Your task to perform on an android device: Go to privacy settings Image 0: 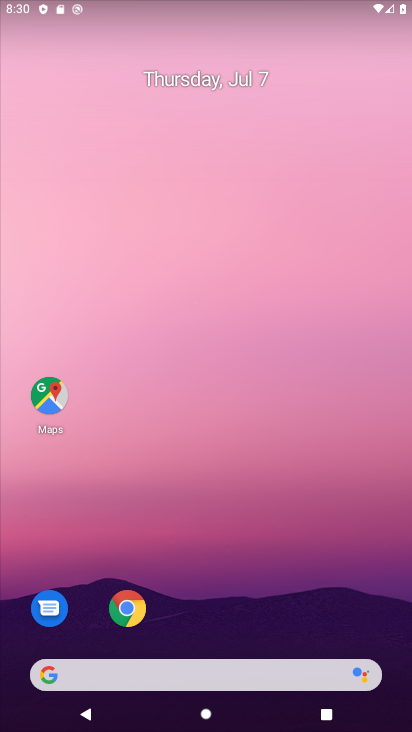
Step 0: drag from (235, 656) to (207, 255)
Your task to perform on an android device: Go to privacy settings Image 1: 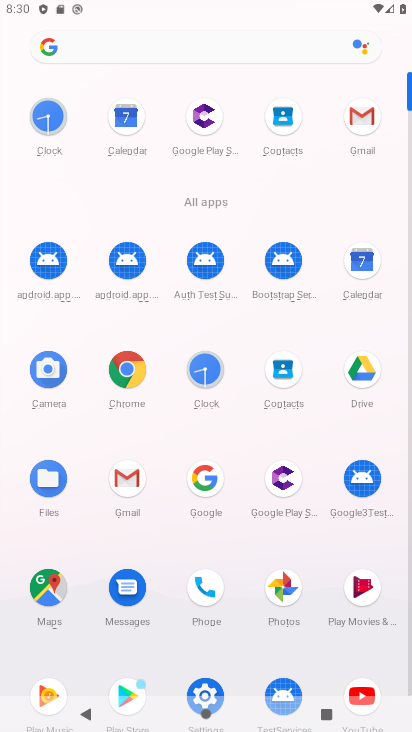
Step 1: click (201, 688)
Your task to perform on an android device: Go to privacy settings Image 2: 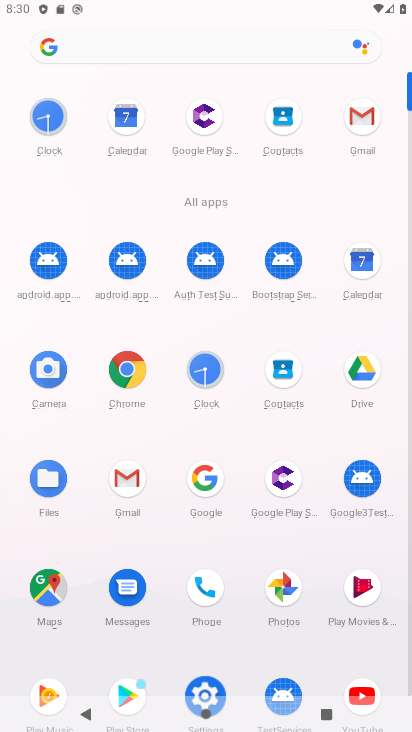
Step 2: click (203, 690)
Your task to perform on an android device: Go to privacy settings Image 3: 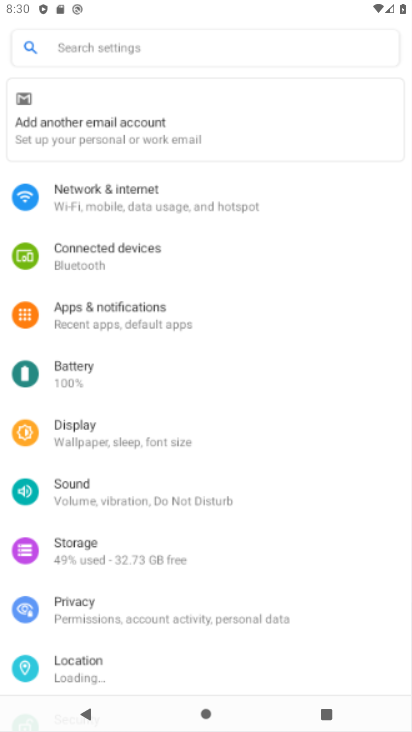
Step 3: click (205, 691)
Your task to perform on an android device: Go to privacy settings Image 4: 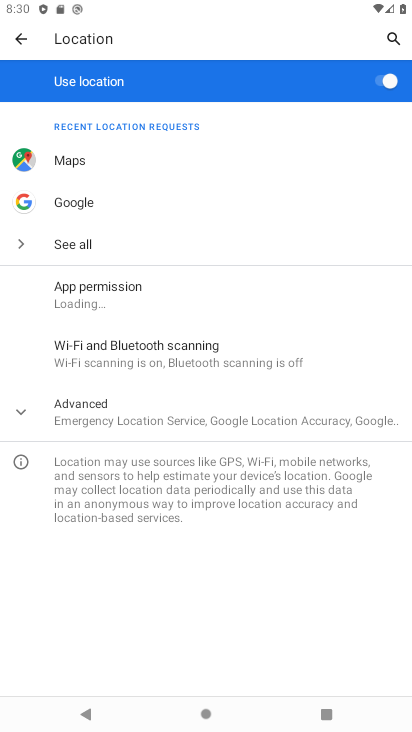
Step 4: click (18, 40)
Your task to perform on an android device: Go to privacy settings Image 5: 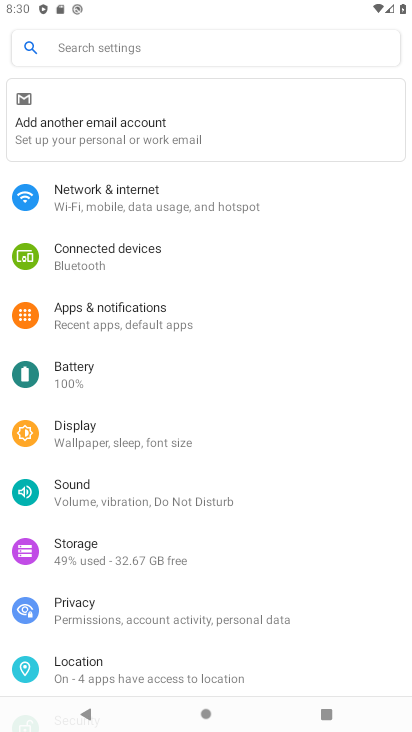
Step 5: click (95, 621)
Your task to perform on an android device: Go to privacy settings Image 6: 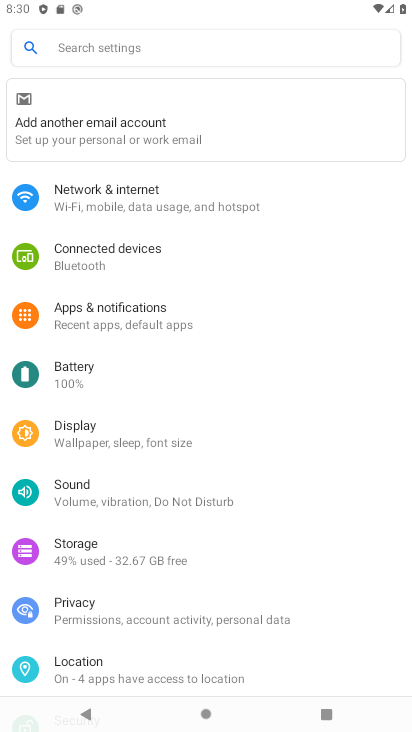
Step 6: click (95, 621)
Your task to perform on an android device: Go to privacy settings Image 7: 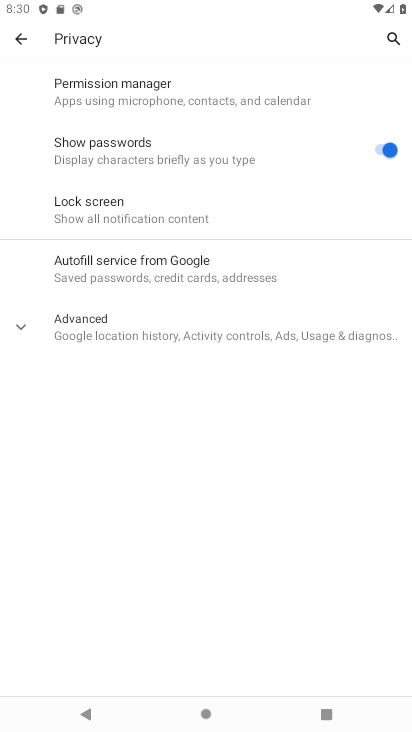
Step 7: task complete